Your task to perform on an android device: Open maps Image 0: 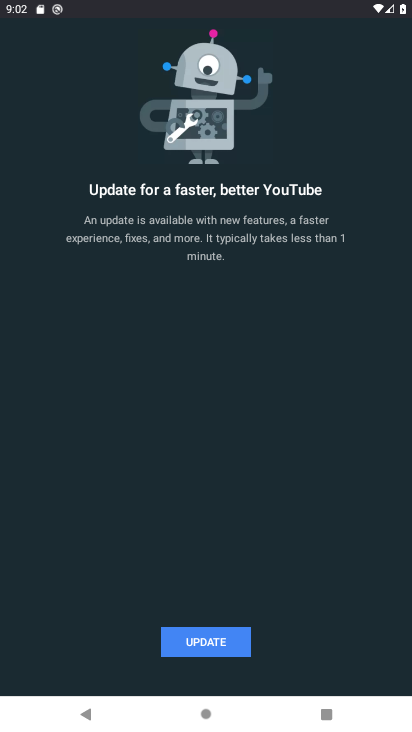
Step 0: press back button
Your task to perform on an android device: Open maps Image 1: 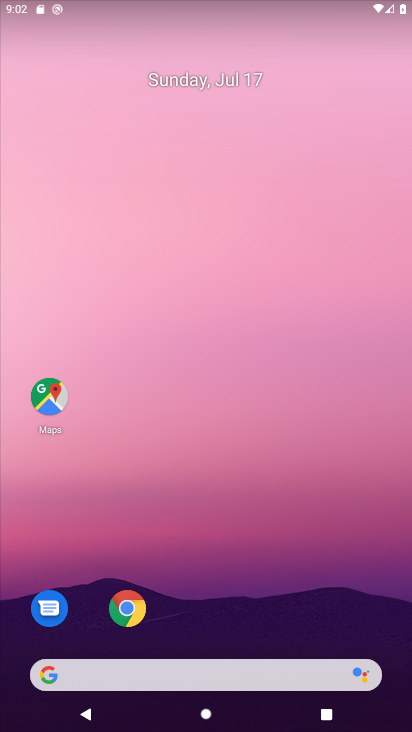
Step 1: drag from (237, 410) to (209, 221)
Your task to perform on an android device: Open maps Image 2: 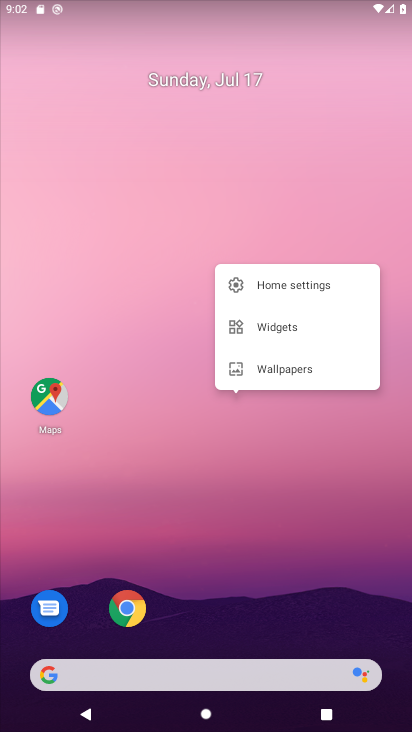
Step 2: drag from (244, 649) to (244, 298)
Your task to perform on an android device: Open maps Image 3: 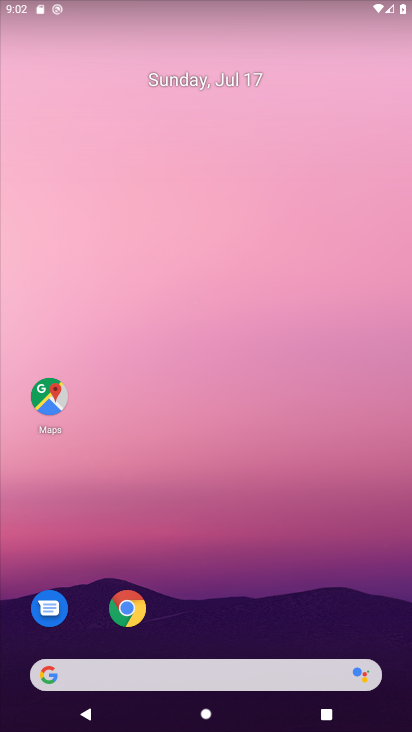
Step 3: drag from (223, 633) to (166, 205)
Your task to perform on an android device: Open maps Image 4: 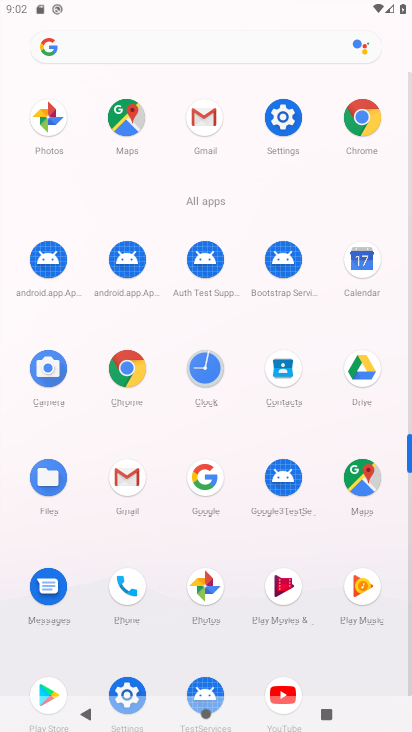
Step 4: click (360, 477)
Your task to perform on an android device: Open maps Image 5: 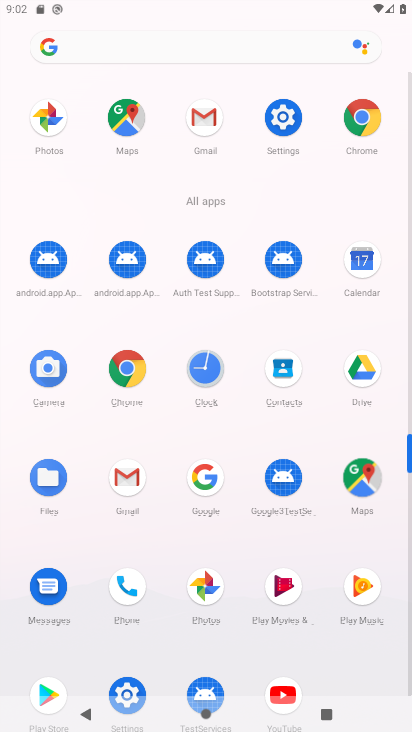
Step 5: click (358, 485)
Your task to perform on an android device: Open maps Image 6: 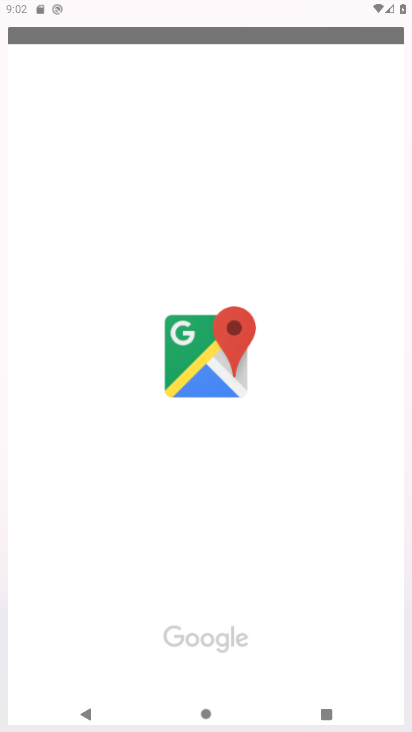
Step 6: click (357, 486)
Your task to perform on an android device: Open maps Image 7: 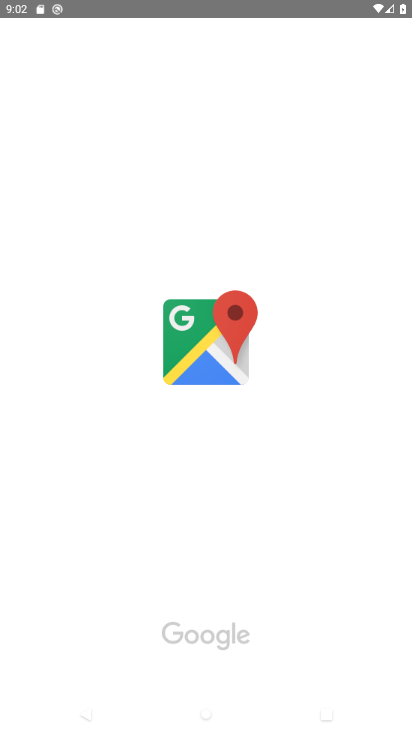
Step 7: click (355, 489)
Your task to perform on an android device: Open maps Image 8: 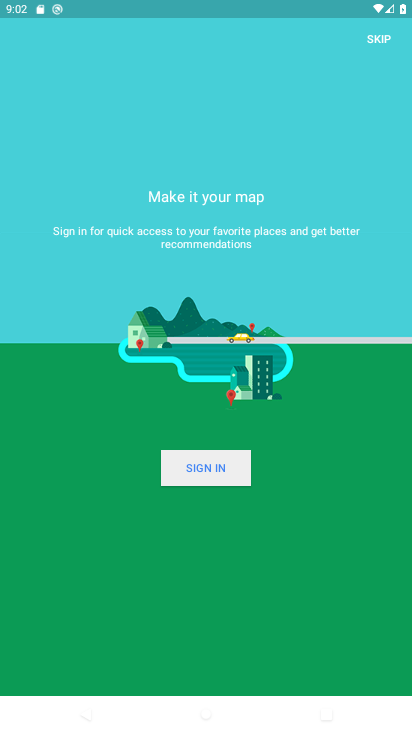
Step 8: click (378, 29)
Your task to perform on an android device: Open maps Image 9: 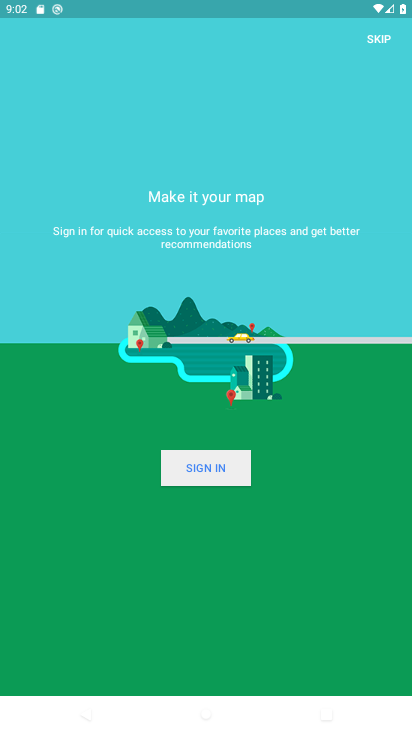
Step 9: click (378, 38)
Your task to perform on an android device: Open maps Image 10: 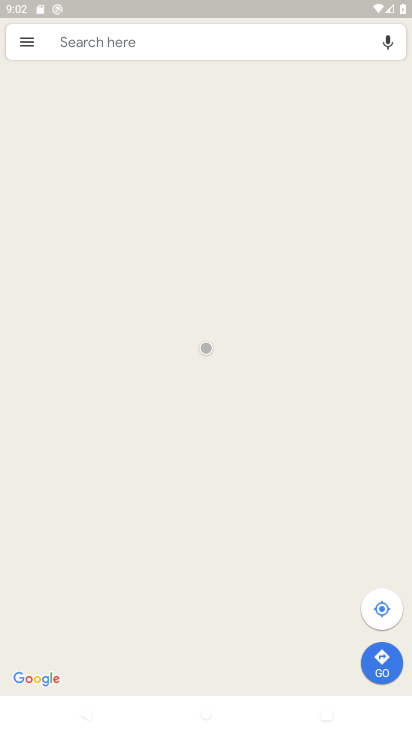
Step 10: click (380, 43)
Your task to perform on an android device: Open maps Image 11: 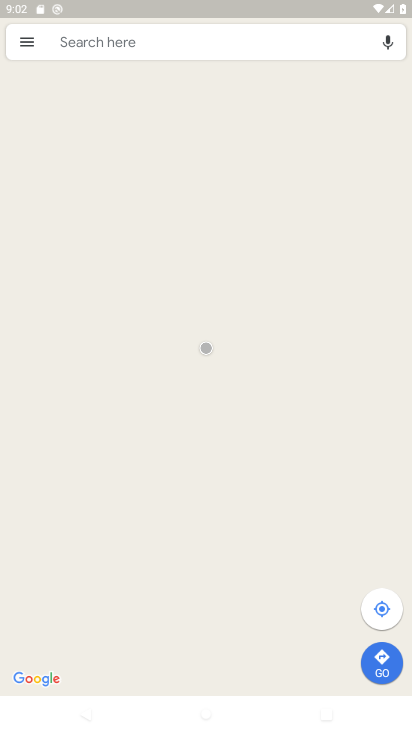
Step 11: click (380, 44)
Your task to perform on an android device: Open maps Image 12: 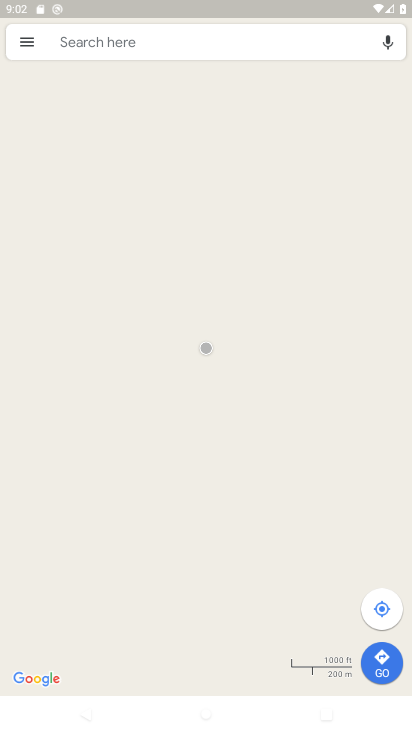
Step 12: click (381, 45)
Your task to perform on an android device: Open maps Image 13: 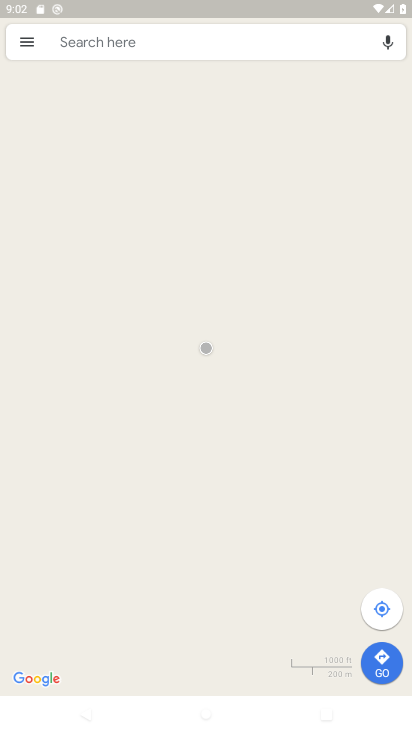
Step 13: task complete